Your task to perform on an android device: turn off priority inbox in the gmail app Image 0: 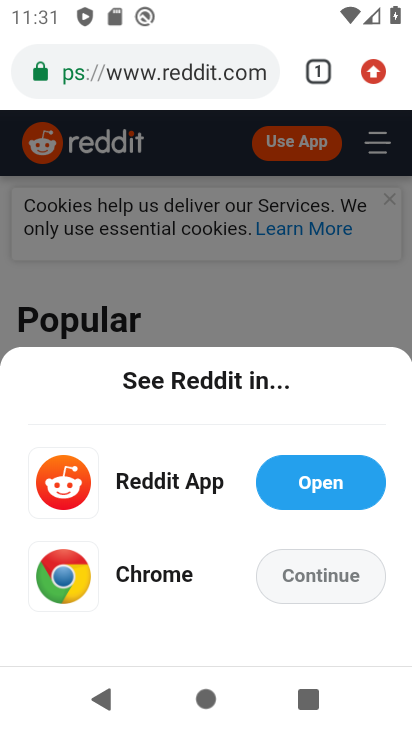
Step 0: press home button
Your task to perform on an android device: turn off priority inbox in the gmail app Image 1: 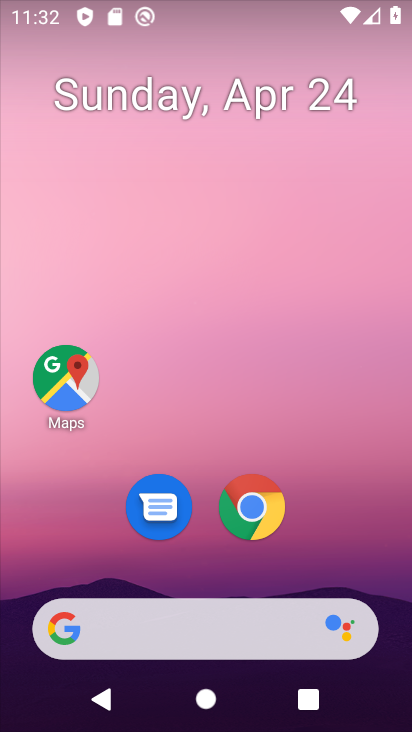
Step 1: drag from (335, 405) to (345, 130)
Your task to perform on an android device: turn off priority inbox in the gmail app Image 2: 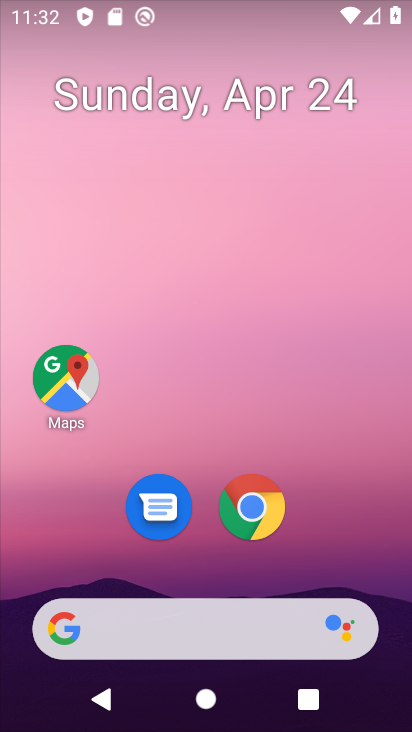
Step 2: drag from (318, 498) to (340, 140)
Your task to perform on an android device: turn off priority inbox in the gmail app Image 3: 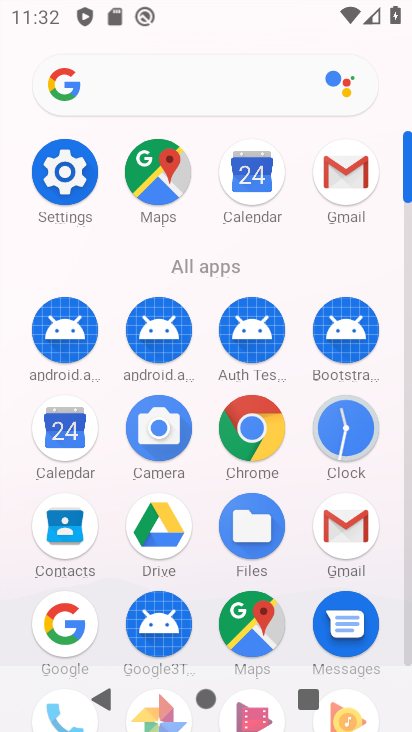
Step 3: click (356, 529)
Your task to perform on an android device: turn off priority inbox in the gmail app Image 4: 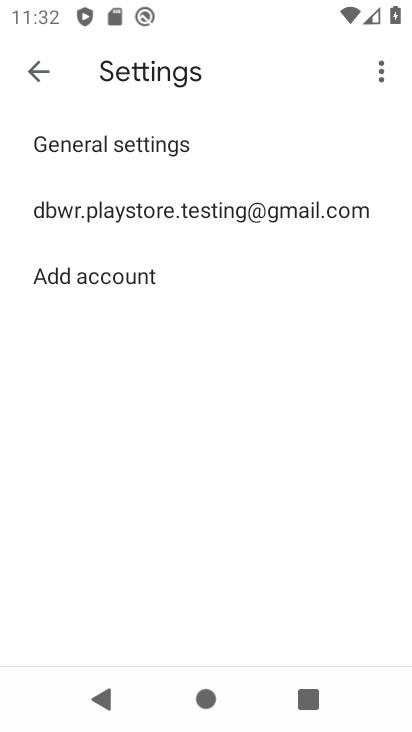
Step 4: click (234, 206)
Your task to perform on an android device: turn off priority inbox in the gmail app Image 5: 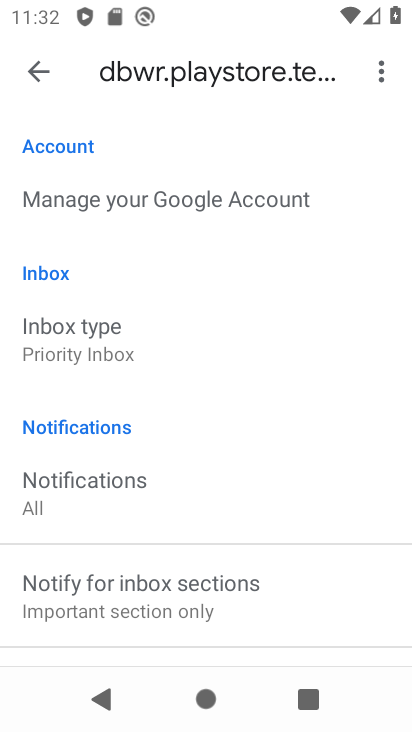
Step 5: click (84, 354)
Your task to perform on an android device: turn off priority inbox in the gmail app Image 6: 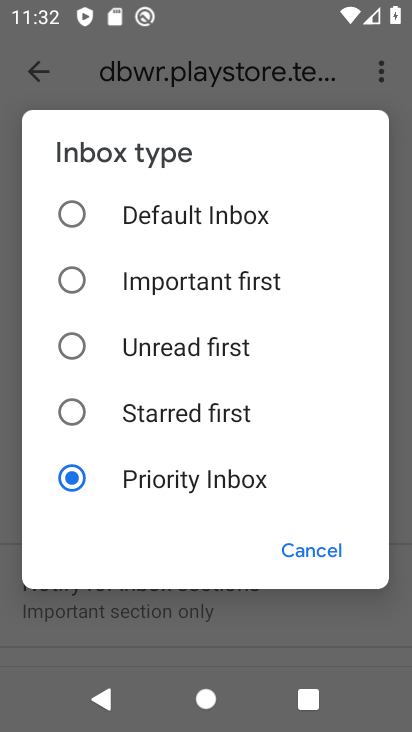
Step 6: click (165, 207)
Your task to perform on an android device: turn off priority inbox in the gmail app Image 7: 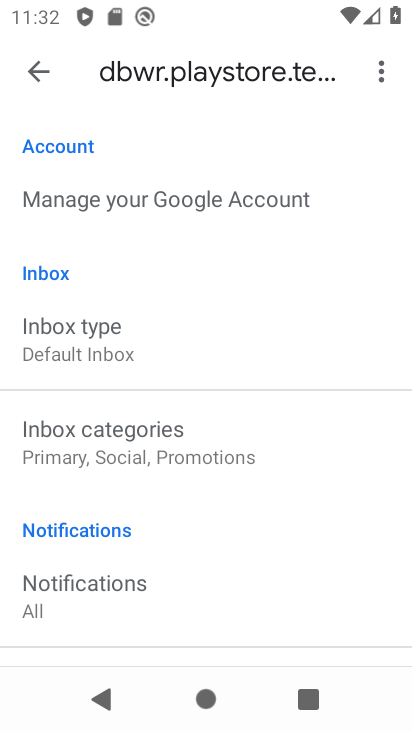
Step 7: task complete